Your task to perform on an android device: turn smart compose on in the gmail app Image 0: 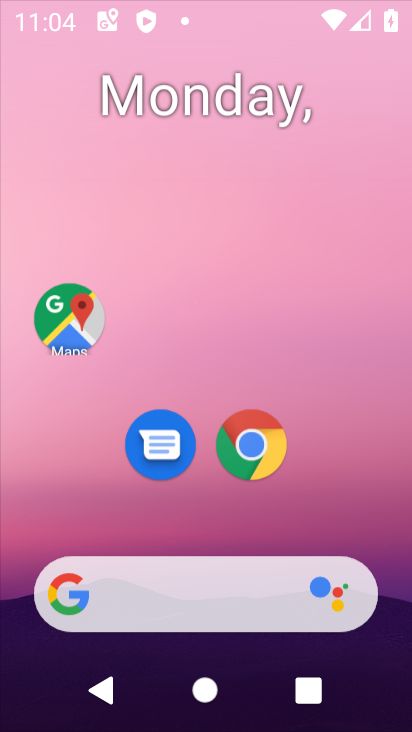
Step 0: drag from (233, 531) to (319, 54)
Your task to perform on an android device: turn smart compose on in the gmail app Image 1: 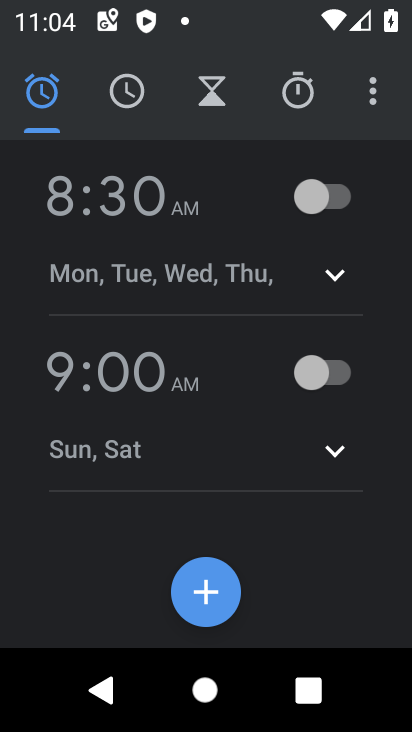
Step 1: press home button
Your task to perform on an android device: turn smart compose on in the gmail app Image 2: 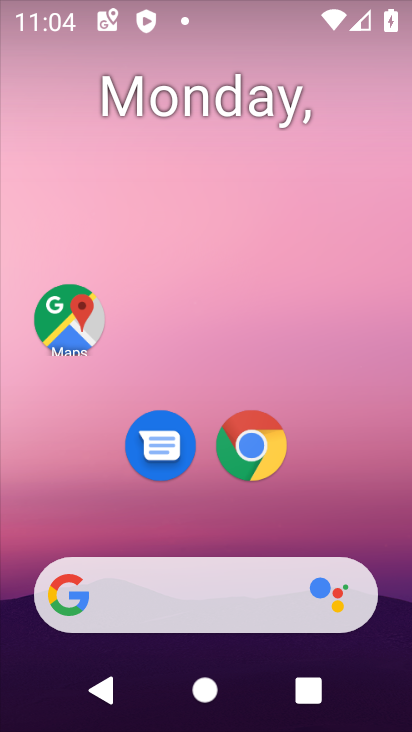
Step 2: drag from (189, 529) to (288, 59)
Your task to perform on an android device: turn smart compose on in the gmail app Image 3: 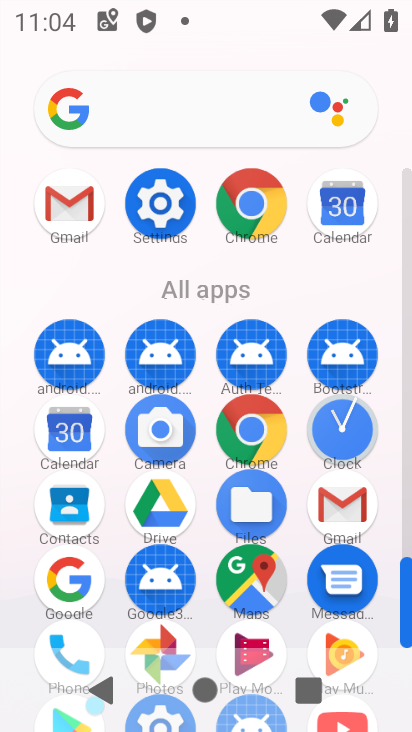
Step 3: drag from (214, 548) to (334, 118)
Your task to perform on an android device: turn smart compose on in the gmail app Image 4: 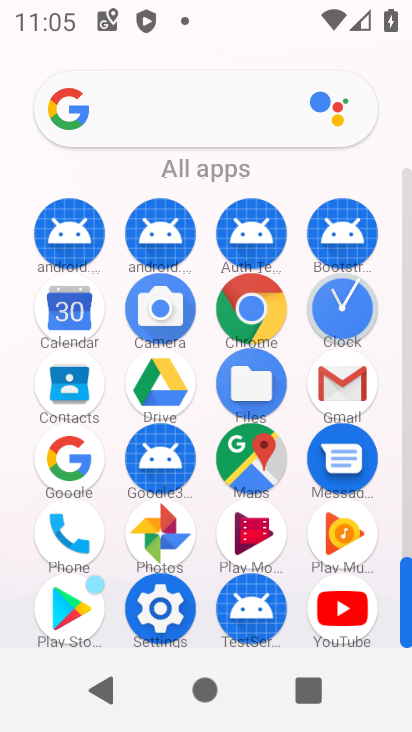
Step 4: click (347, 376)
Your task to perform on an android device: turn smart compose on in the gmail app Image 5: 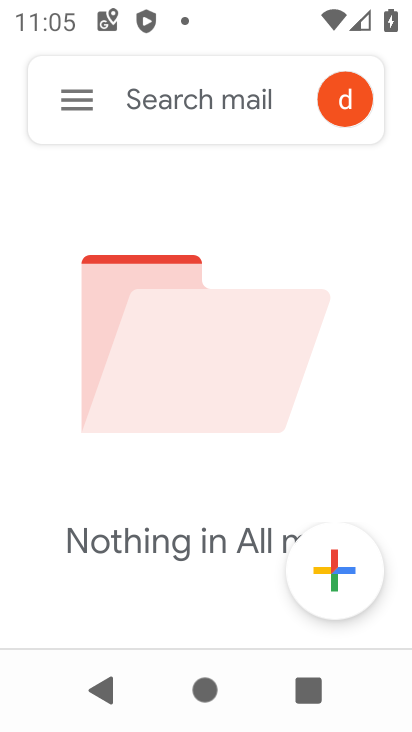
Step 5: click (76, 96)
Your task to perform on an android device: turn smart compose on in the gmail app Image 6: 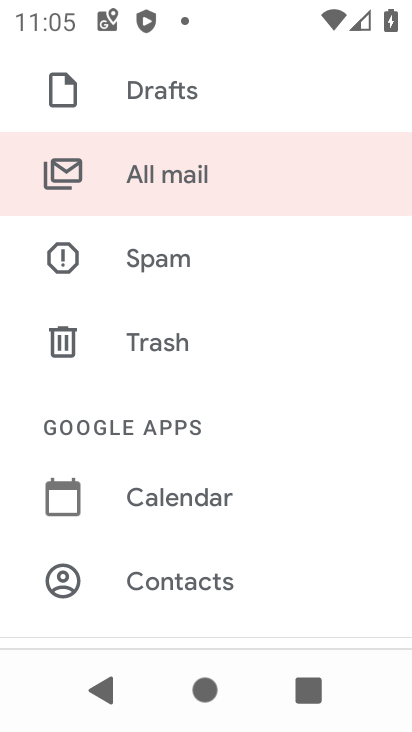
Step 6: drag from (181, 584) to (312, 124)
Your task to perform on an android device: turn smart compose on in the gmail app Image 7: 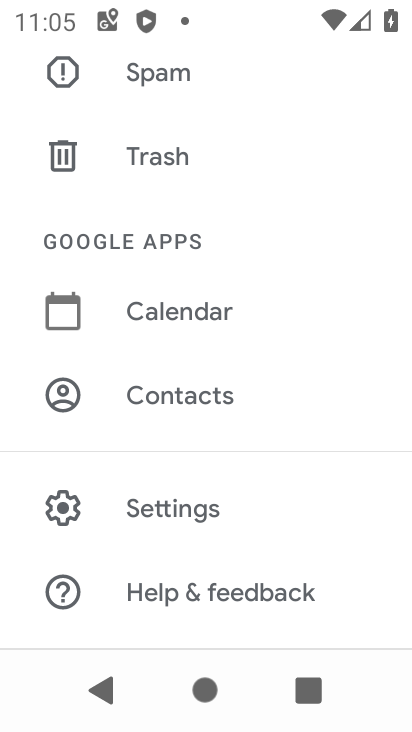
Step 7: click (173, 496)
Your task to perform on an android device: turn smart compose on in the gmail app Image 8: 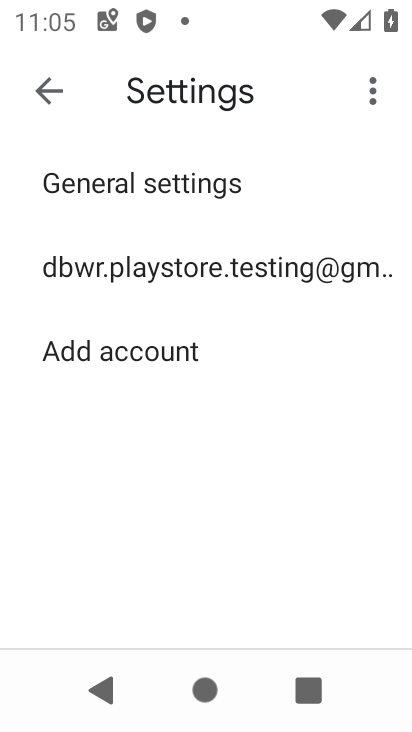
Step 8: click (182, 271)
Your task to perform on an android device: turn smart compose on in the gmail app Image 9: 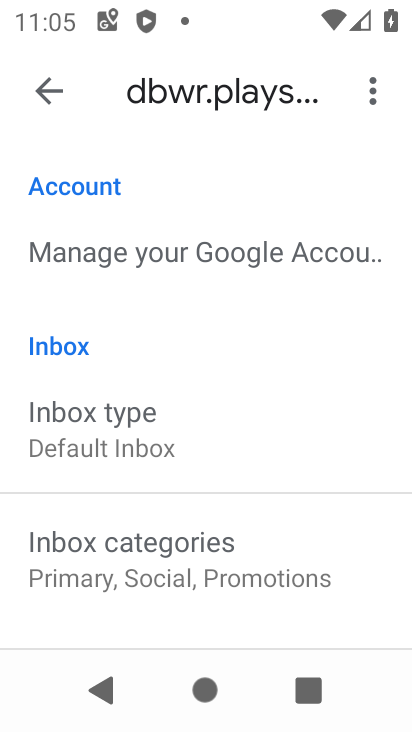
Step 9: task complete